Your task to perform on an android device: add a contact Image 0: 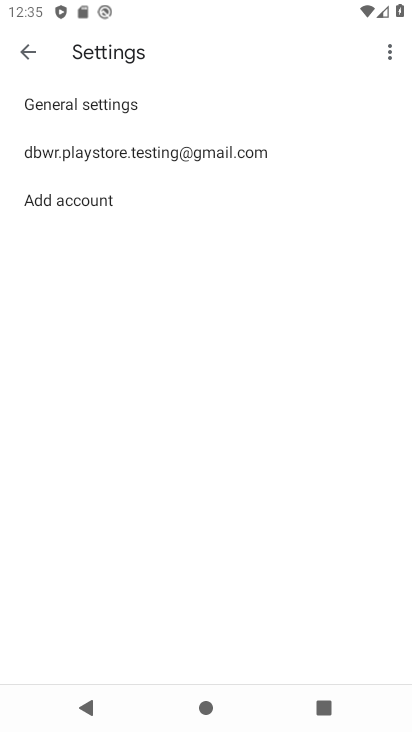
Step 0: press home button
Your task to perform on an android device: add a contact Image 1: 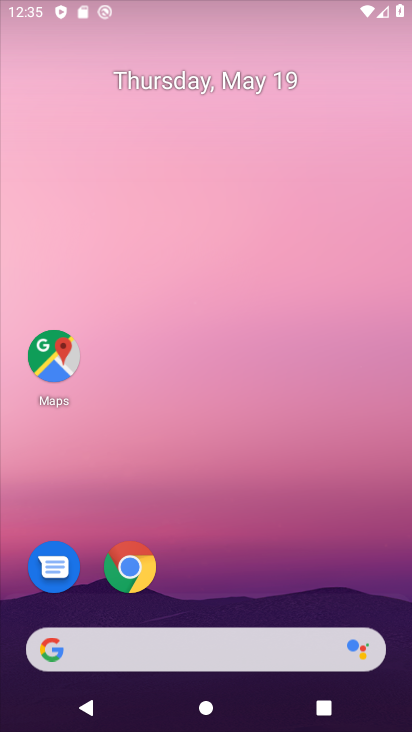
Step 1: drag from (128, 437) to (262, 242)
Your task to perform on an android device: add a contact Image 2: 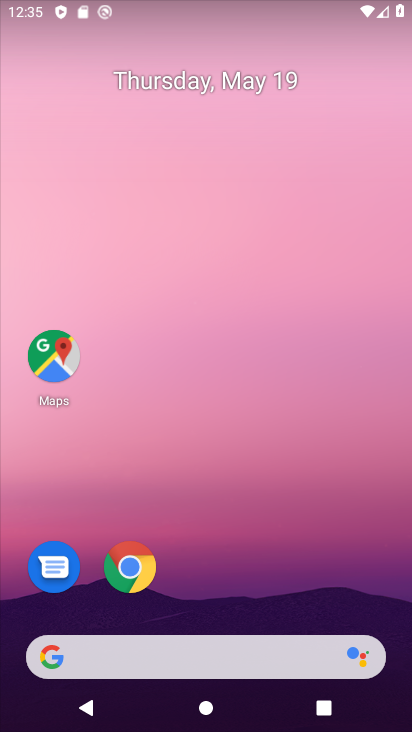
Step 2: click (124, 350)
Your task to perform on an android device: add a contact Image 3: 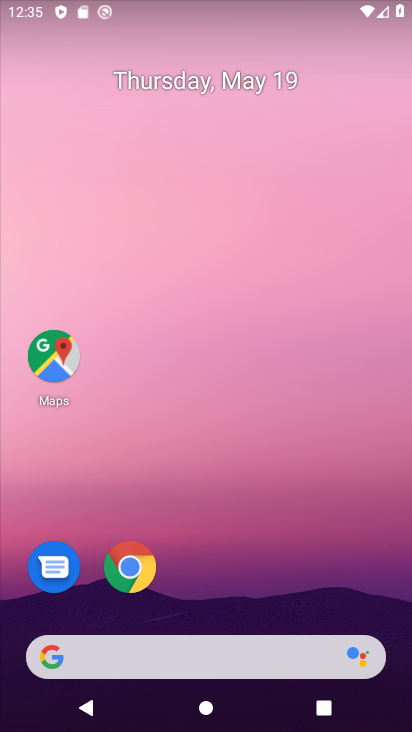
Step 3: drag from (144, 380) to (248, 182)
Your task to perform on an android device: add a contact Image 4: 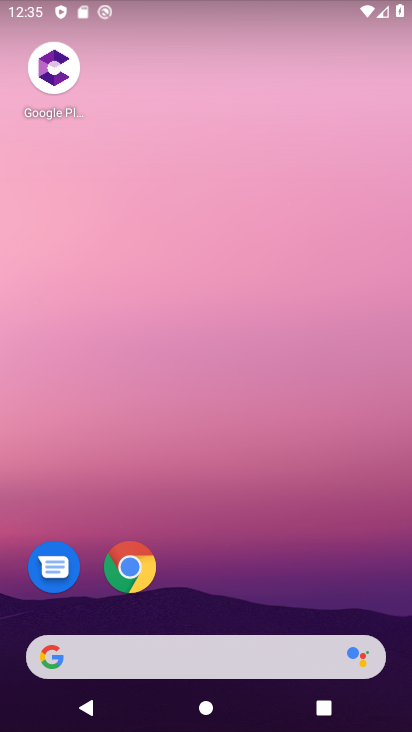
Step 4: press home button
Your task to perform on an android device: add a contact Image 5: 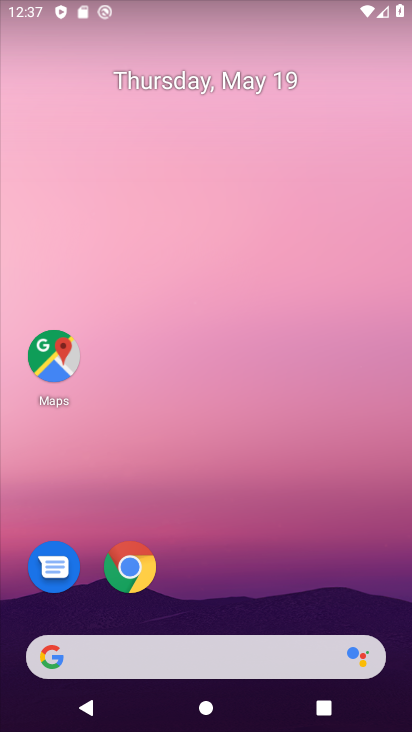
Step 5: click (21, 696)
Your task to perform on an android device: add a contact Image 6: 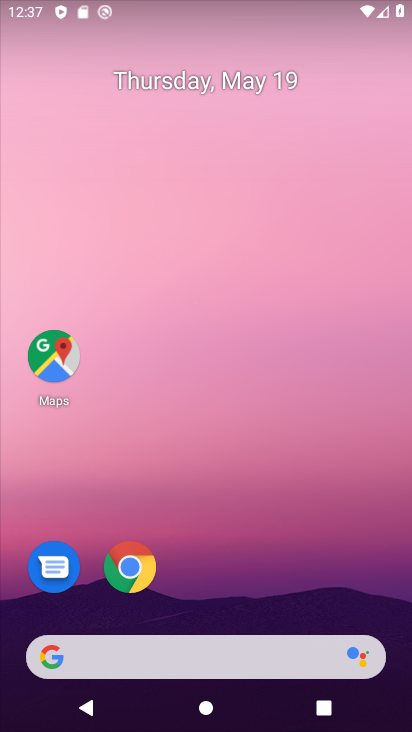
Step 6: drag from (105, 504) to (345, 172)
Your task to perform on an android device: add a contact Image 7: 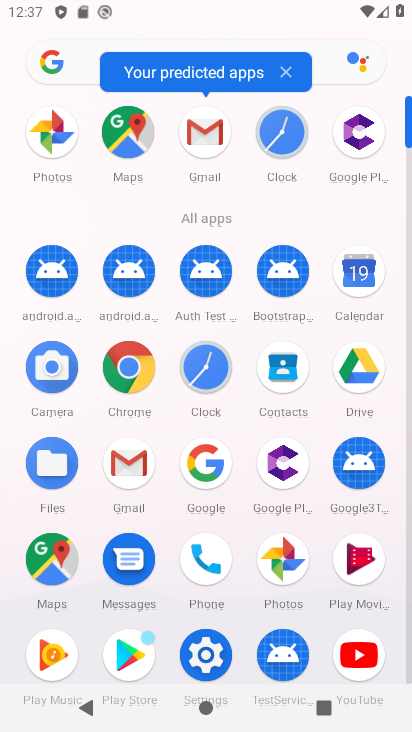
Step 7: click (219, 547)
Your task to perform on an android device: add a contact Image 8: 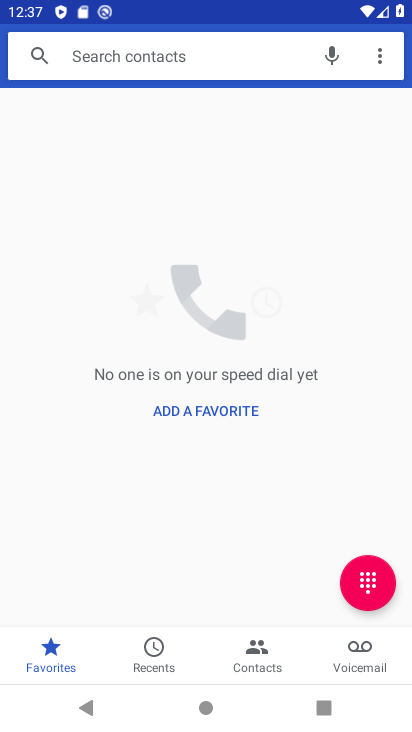
Step 8: click (270, 653)
Your task to perform on an android device: add a contact Image 9: 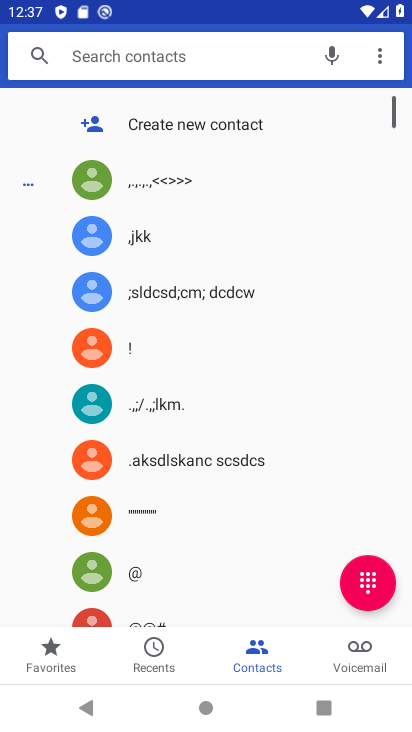
Step 9: click (147, 139)
Your task to perform on an android device: add a contact Image 10: 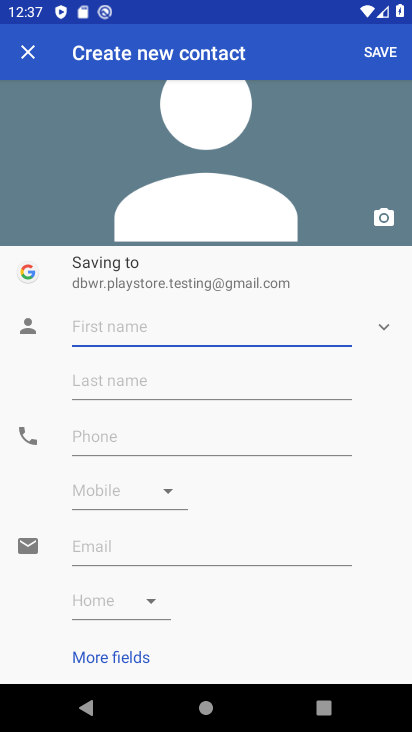
Step 10: type "gfgfg"
Your task to perform on an android device: add a contact Image 11: 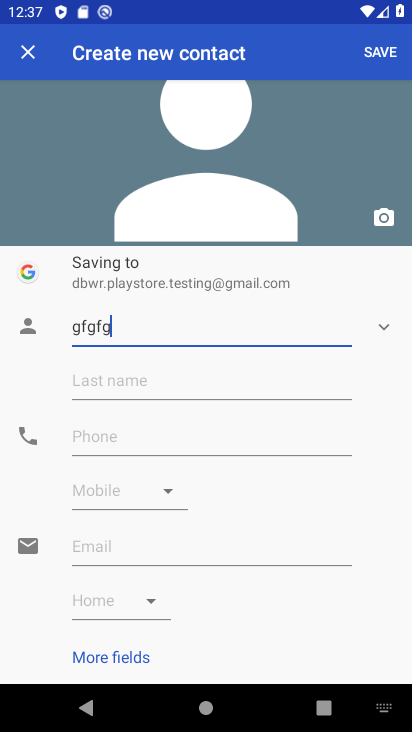
Step 11: click (372, 56)
Your task to perform on an android device: add a contact Image 12: 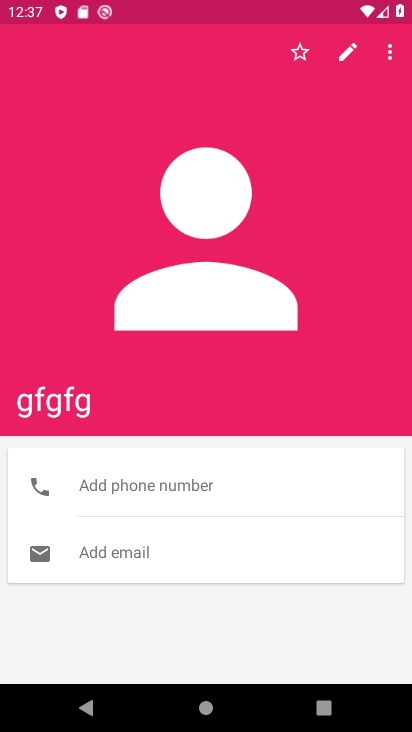
Step 12: task complete